Your task to perform on an android device: uninstall "The Home Depot" Image 0: 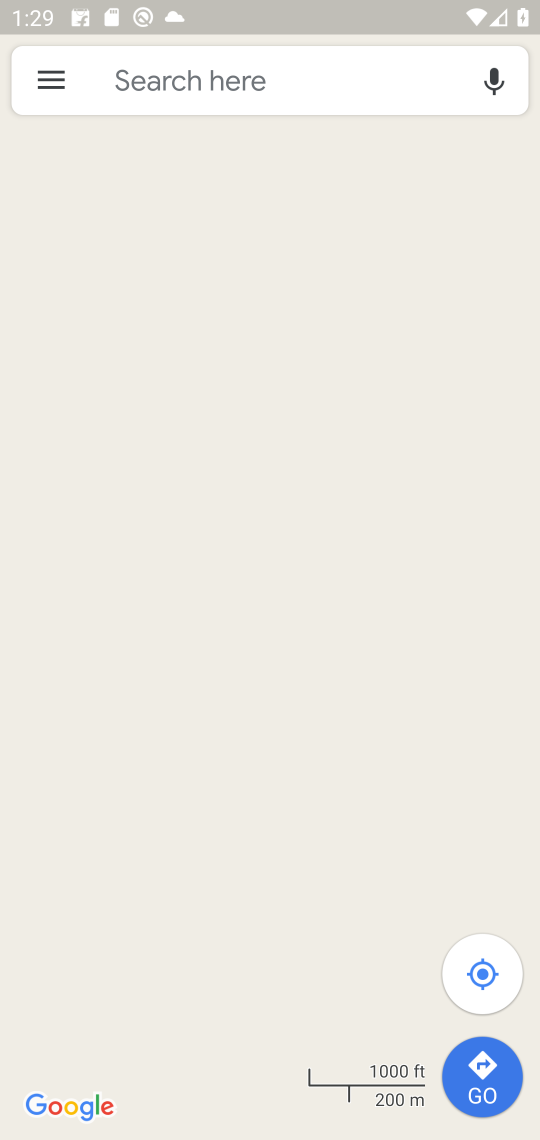
Step 0: press home button
Your task to perform on an android device: uninstall "The Home Depot" Image 1: 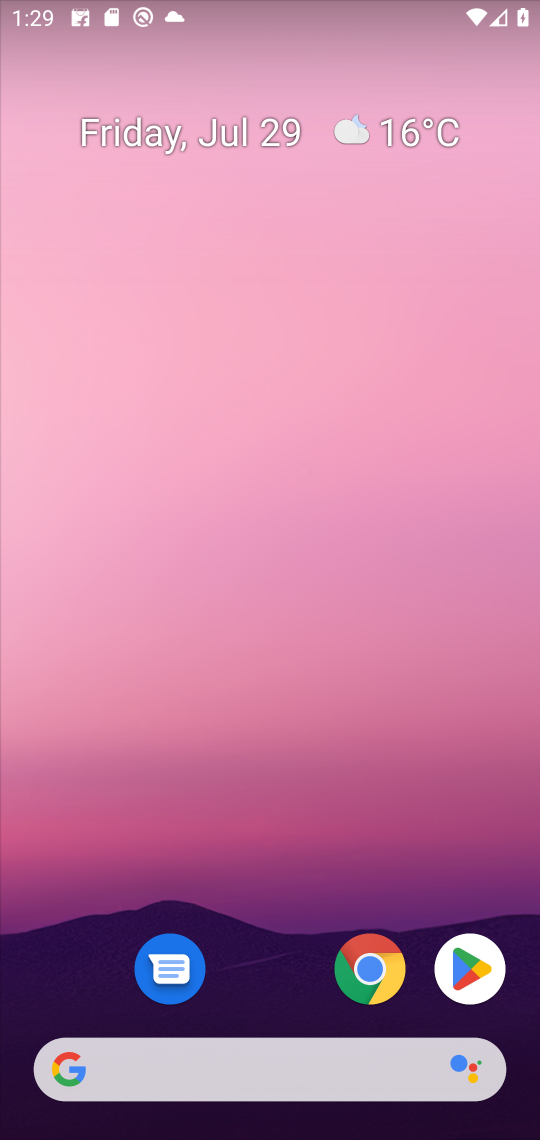
Step 1: click (471, 969)
Your task to perform on an android device: uninstall "The Home Depot" Image 2: 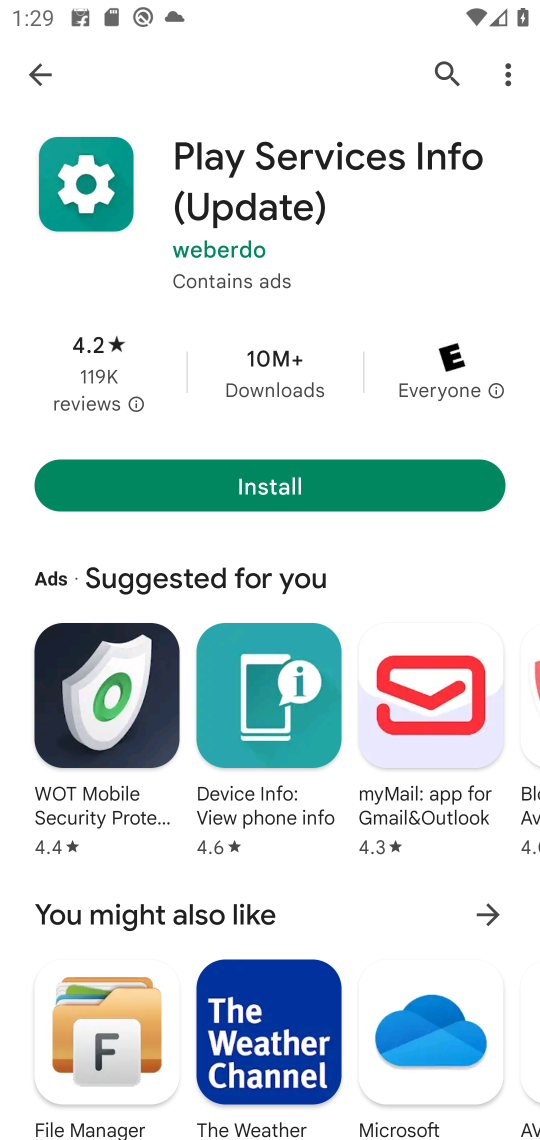
Step 2: click (433, 71)
Your task to perform on an android device: uninstall "The Home Depot" Image 3: 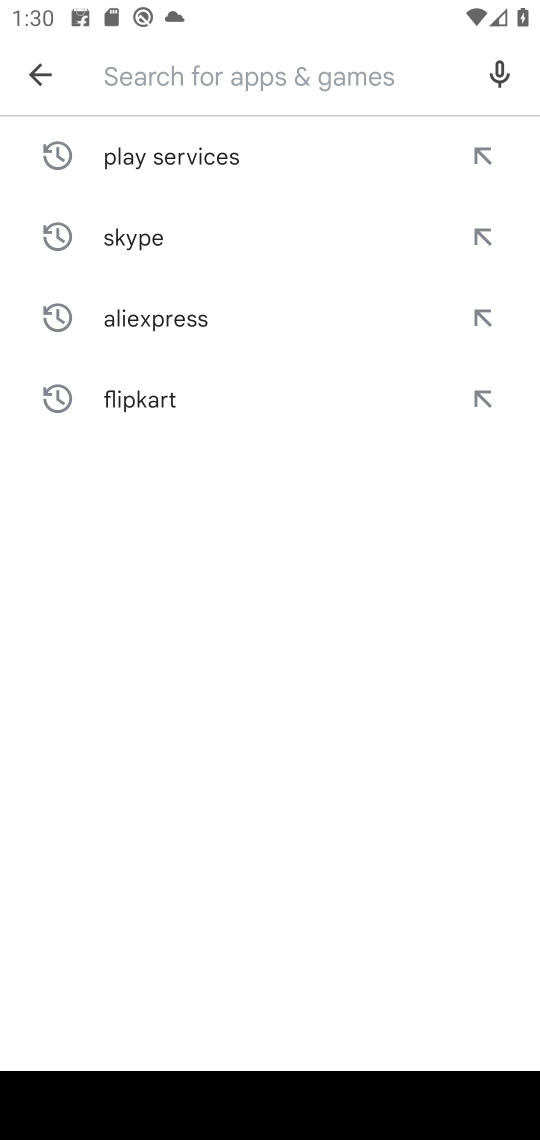
Step 3: type "home depot"
Your task to perform on an android device: uninstall "The Home Depot" Image 4: 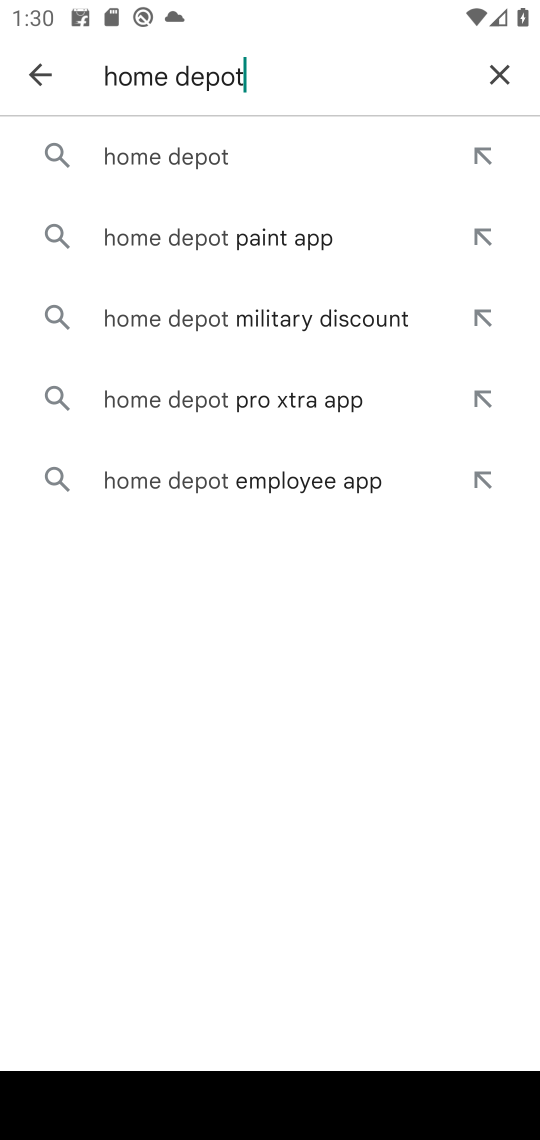
Step 4: click (233, 171)
Your task to perform on an android device: uninstall "The Home Depot" Image 5: 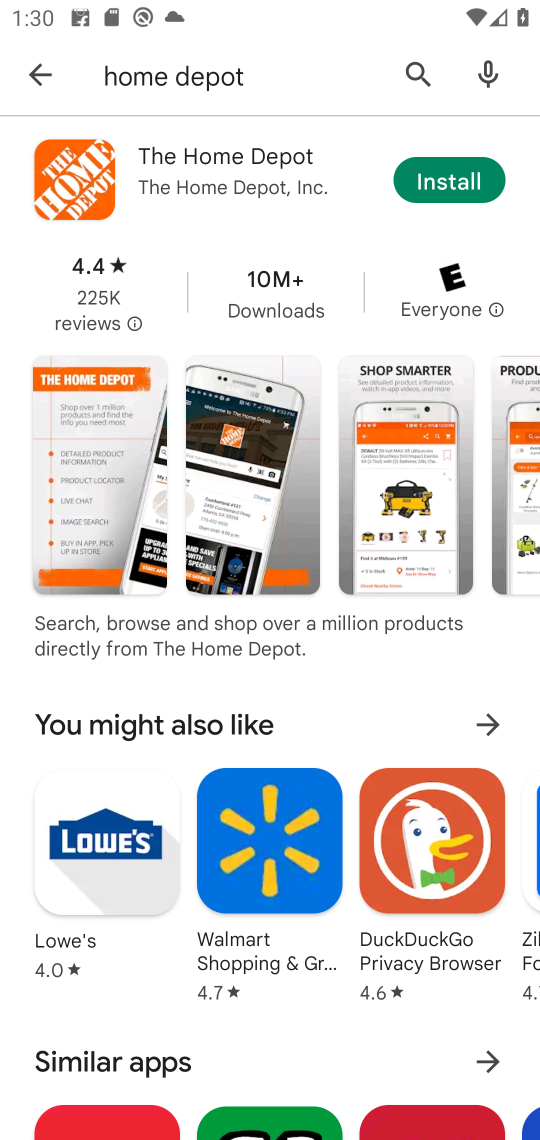
Step 5: click (424, 181)
Your task to perform on an android device: uninstall "The Home Depot" Image 6: 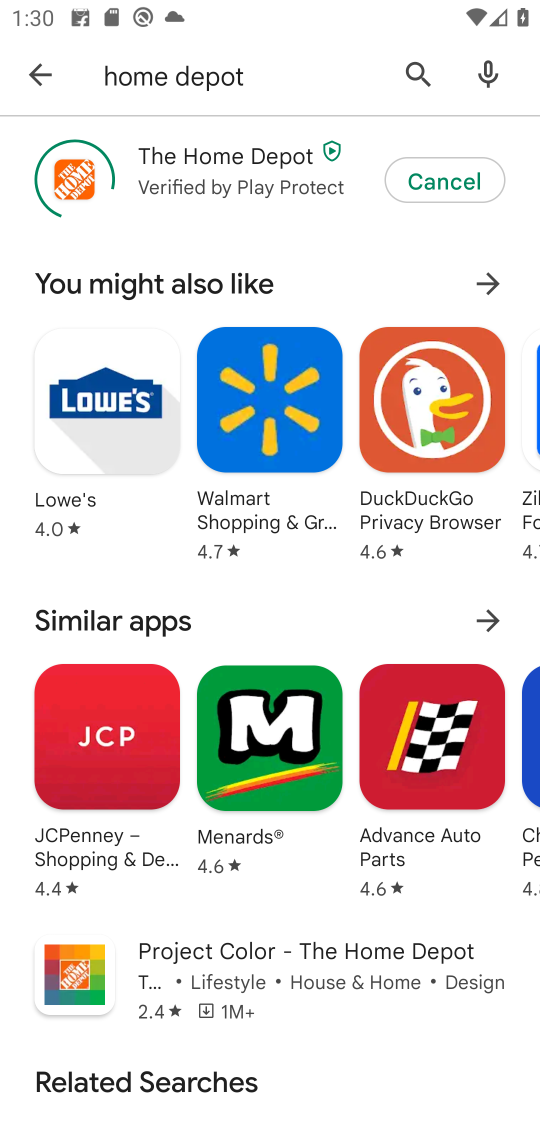
Step 6: click (424, 181)
Your task to perform on an android device: uninstall "The Home Depot" Image 7: 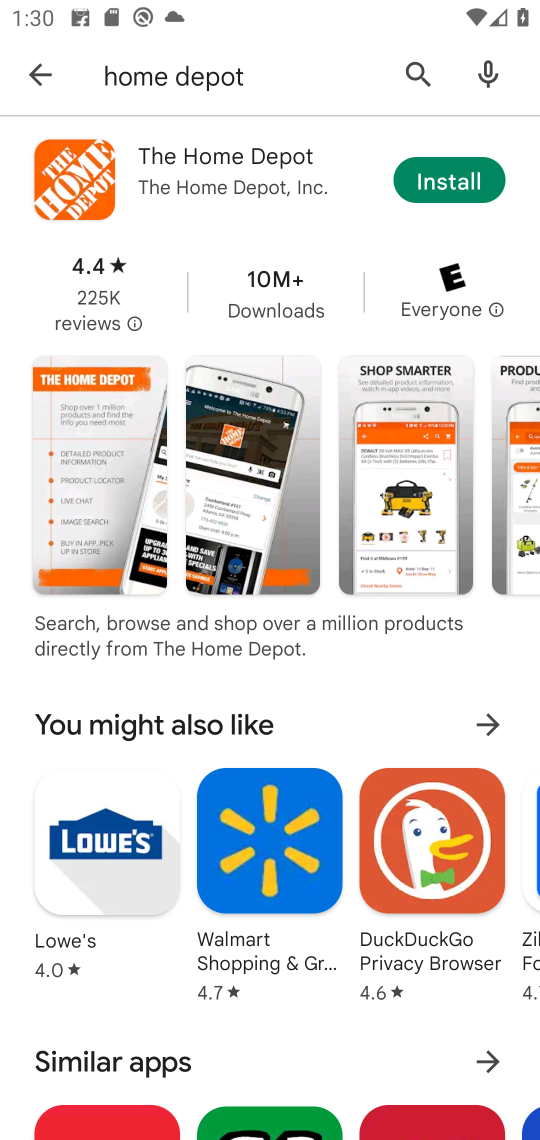
Step 7: click (106, 167)
Your task to perform on an android device: uninstall "The Home Depot" Image 8: 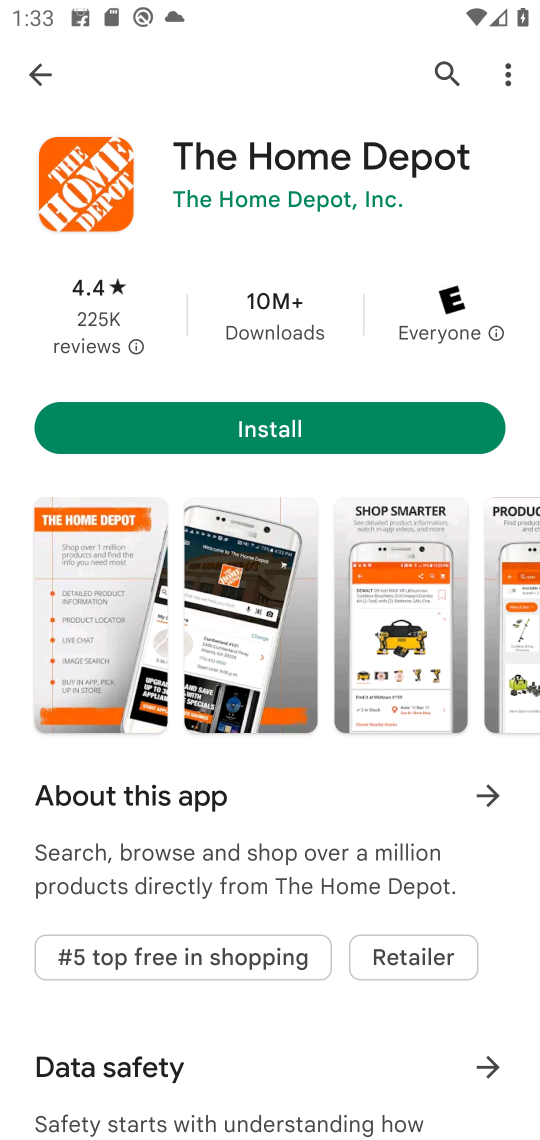
Step 8: task complete